Your task to perform on an android device: Show me the alarms in the clock app Image 0: 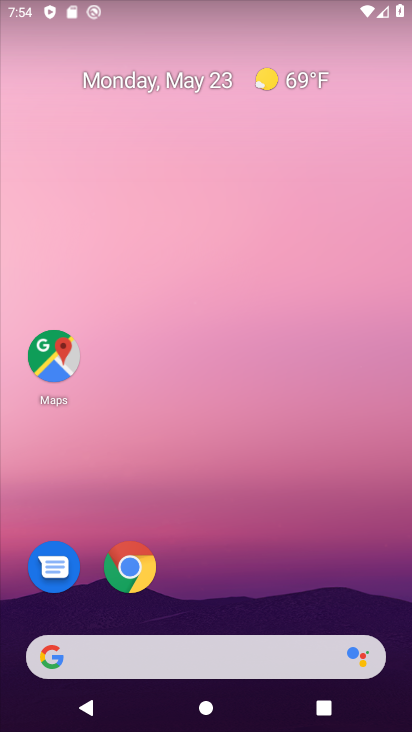
Step 0: drag from (219, 609) to (350, 8)
Your task to perform on an android device: Show me the alarms in the clock app Image 1: 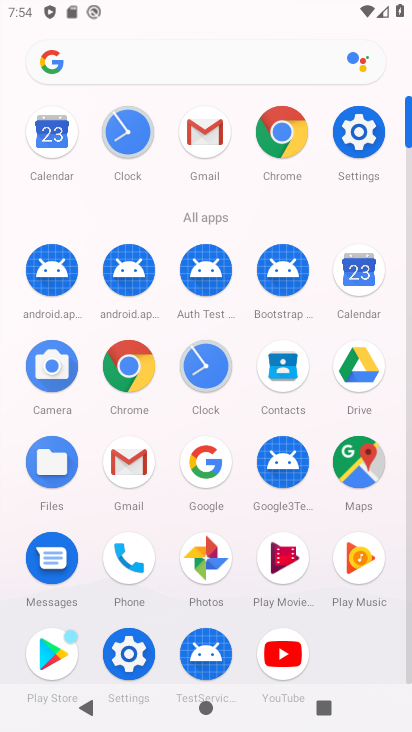
Step 1: click (208, 369)
Your task to perform on an android device: Show me the alarms in the clock app Image 2: 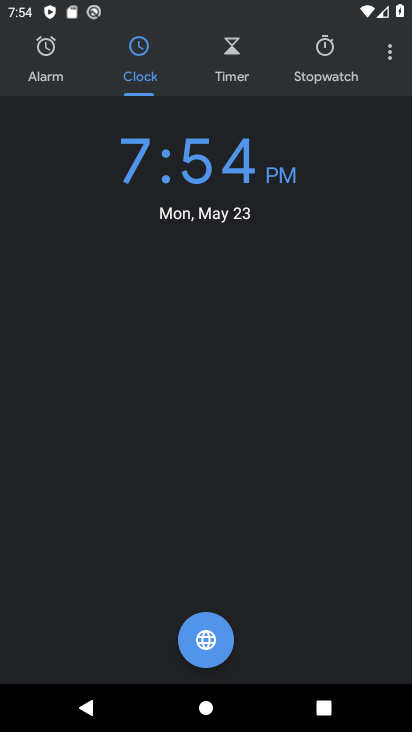
Step 2: click (385, 49)
Your task to perform on an android device: Show me the alarms in the clock app Image 3: 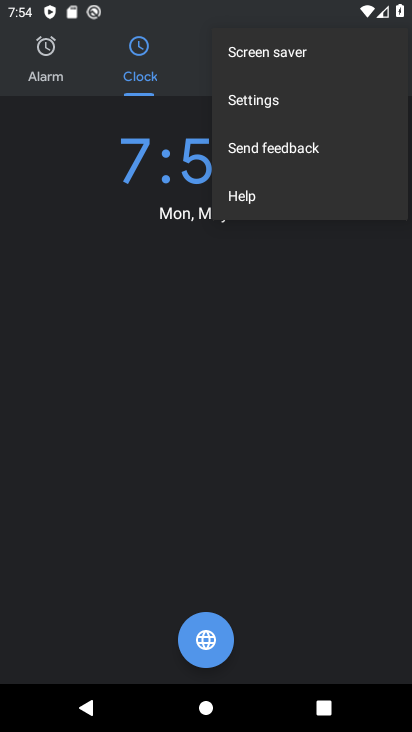
Step 3: click (265, 102)
Your task to perform on an android device: Show me the alarms in the clock app Image 4: 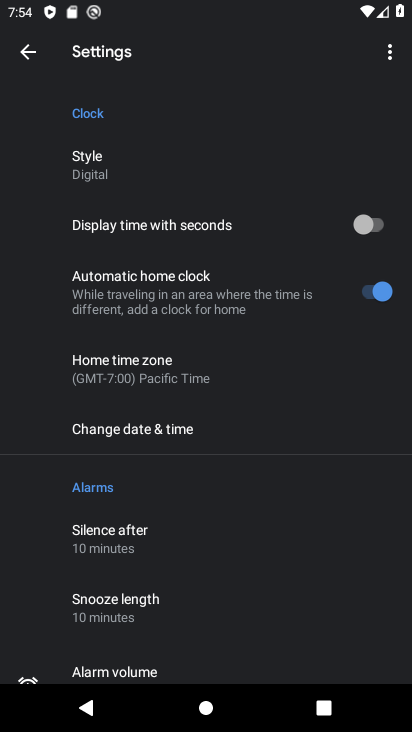
Step 4: click (25, 47)
Your task to perform on an android device: Show me the alarms in the clock app Image 5: 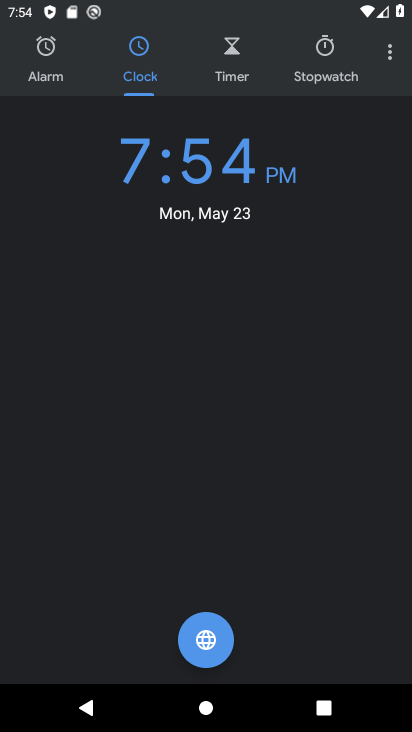
Step 5: click (25, 47)
Your task to perform on an android device: Show me the alarms in the clock app Image 6: 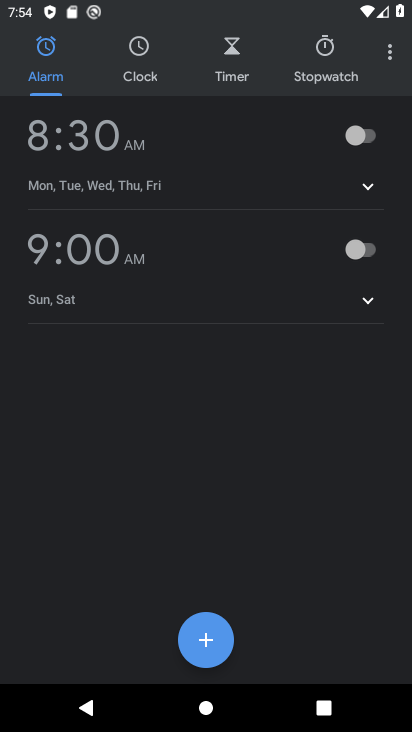
Step 6: task complete